Your task to perform on an android device: turn off priority inbox in the gmail app Image 0: 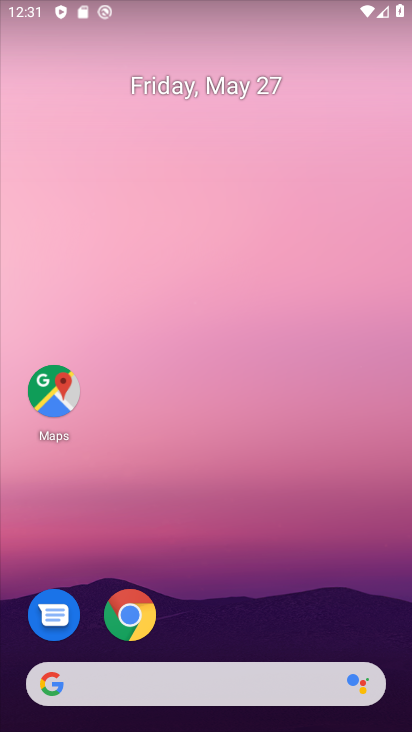
Step 0: drag from (213, 620) to (274, 143)
Your task to perform on an android device: turn off priority inbox in the gmail app Image 1: 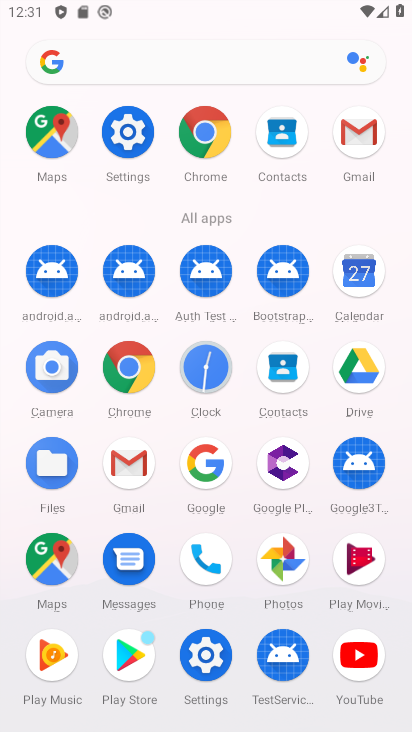
Step 1: click (124, 480)
Your task to perform on an android device: turn off priority inbox in the gmail app Image 2: 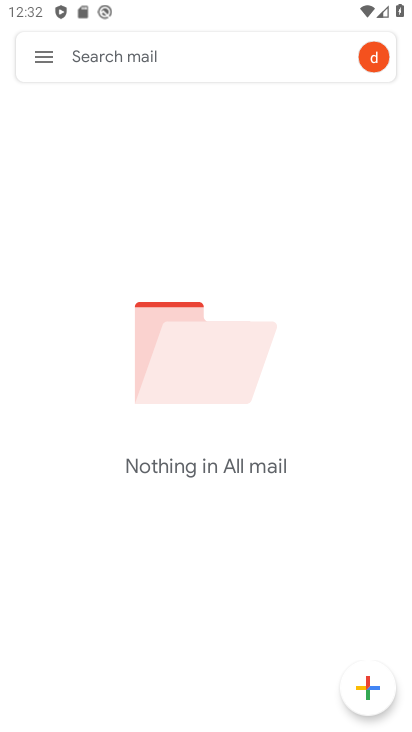
Step 2: click (39, 61)
Your task to perform on an android device: turn off priority inbox in the gmail app Image 3: 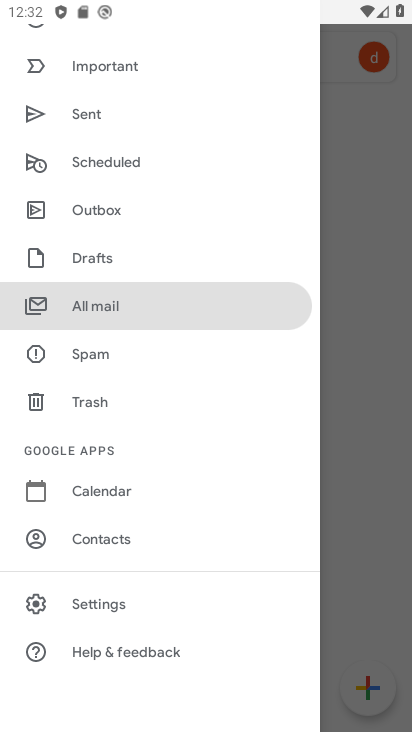
Step 3: click (146, 622)
Your task to perform on an android device: turn off priority inbox in the gmail app Image 4: 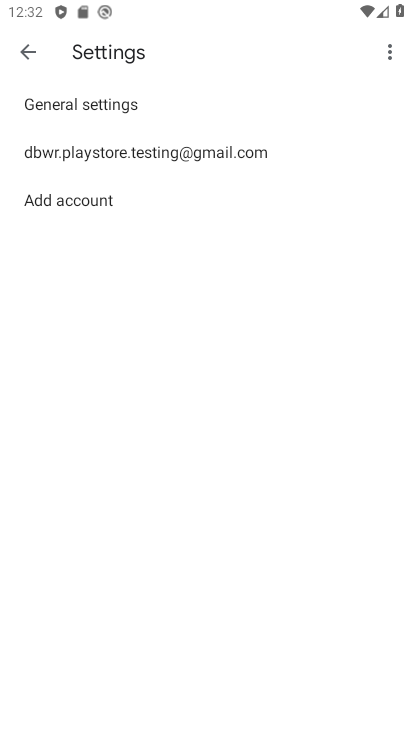
Step 4: click (139, 150)
Your task to perform on an android device: turn off priority inbox in the gmail app Image 5: 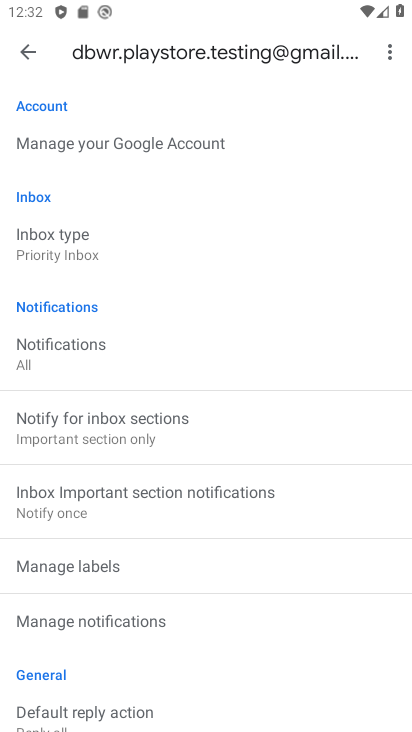
Step 5: drag from (123, 616) to (145, 426)
Your task to perform on an android device: turn off priority inbox in the gmail app Image 6: 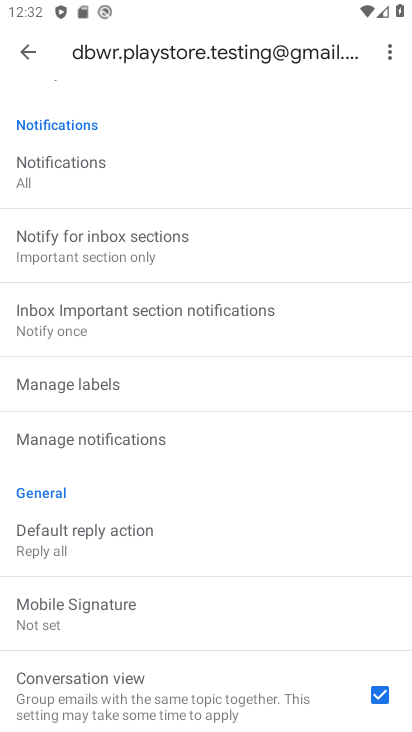
Step 6: drag from (108, 144) to (164, 417)
Your task to perform on an android device: turn off priority inbox in the gmail app Image 7: 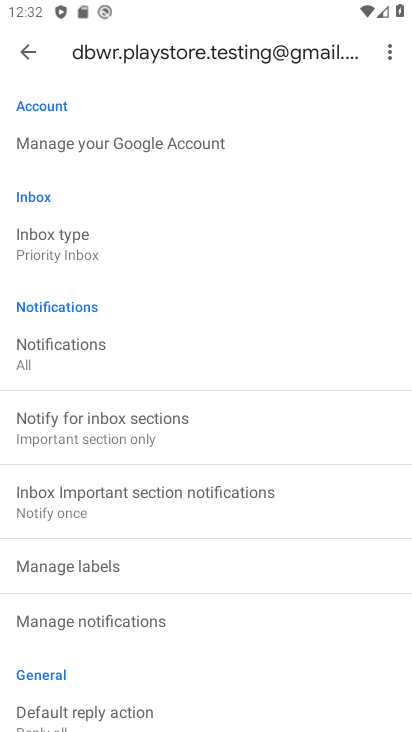
Step 7: click (105, 250)
Your task to perform on an android device: turn off priority inbox in the gmail app Image 8: 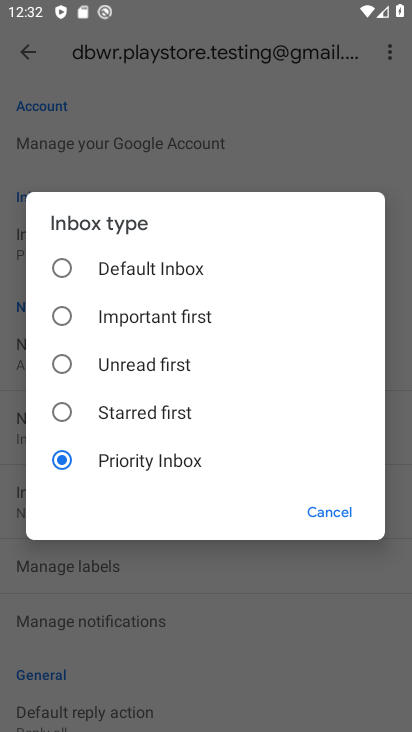
Step 8: click (183, 289)
Your task to perform on an android device: turn off priority inbox in the gmail app Image 9: 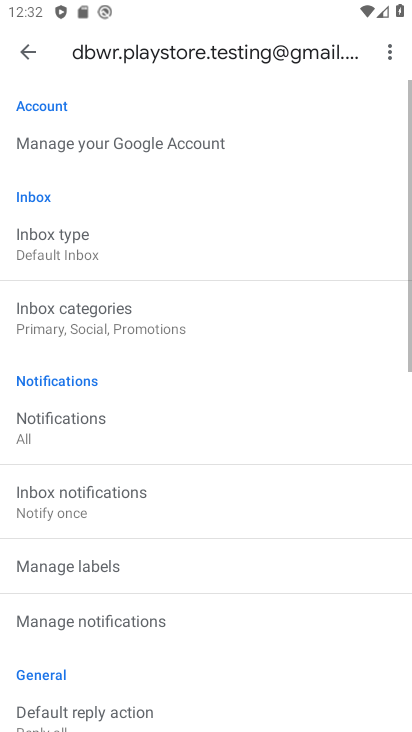
Step 9: task complete